Your task to perform on an android device: Open settings on Google Maps Image 0: 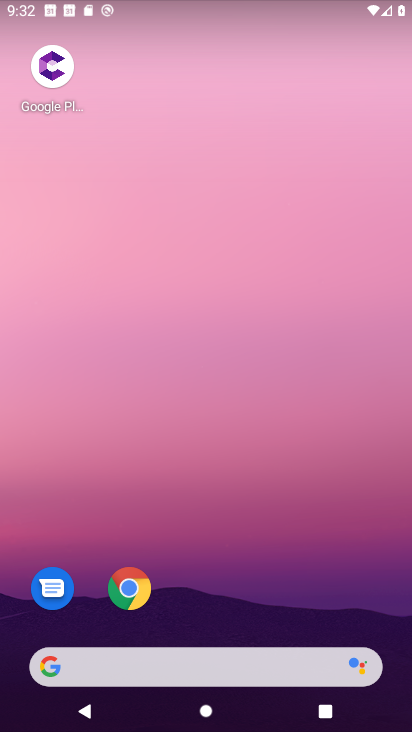
Step 0: drag from (239, 605) to (204, 136)
Your task to perform on an android device: Open settings on Google Maps Image 1: 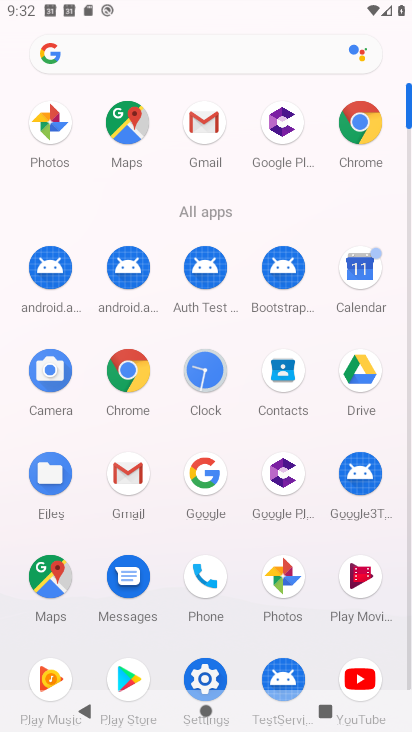
Step 1: click (126, 135)
Your task to perform on an android device: Open settings on Google Maps Image 2: 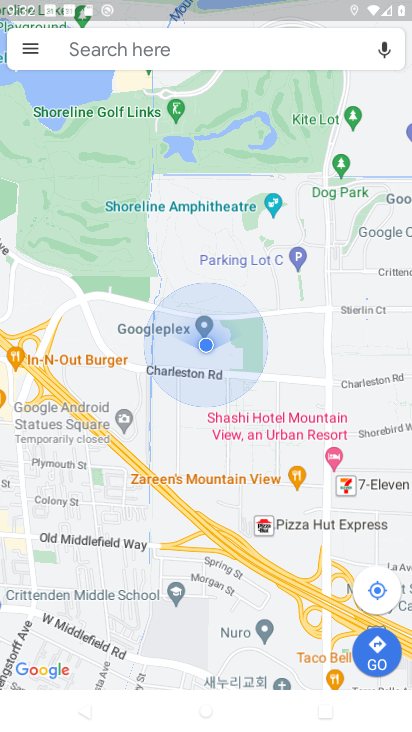
Step 2: task complete